Your task to perform on an android device: Open accessibility settings Image 0: 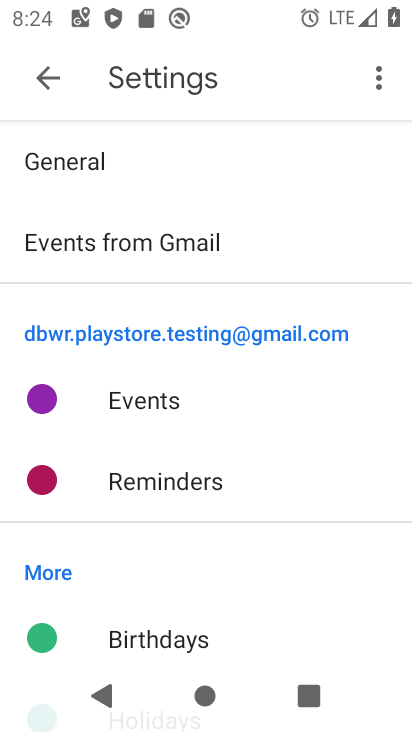
Step 0: press home button
Your task to perform on an android device: Open accessibility settings Image 1: 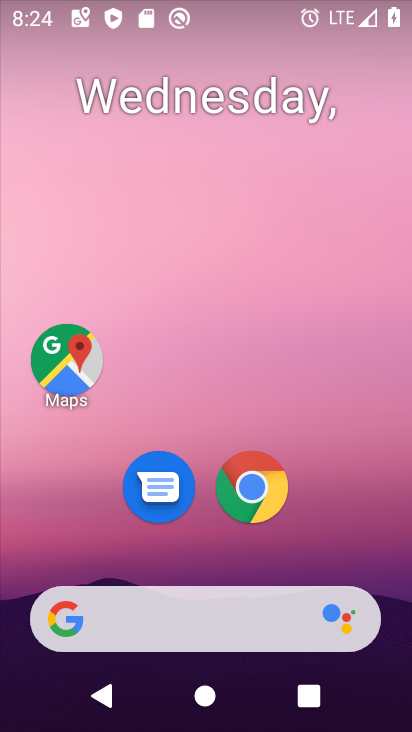
Step 1: drag from (352, 569) to (320, 10)
Your task to perform on an android device: Open accessibility settings Image 2: 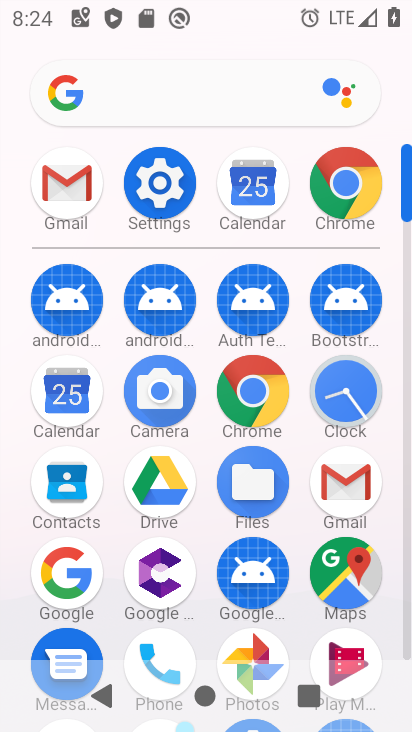
Step 2: click (151, 187)
Your task to perform on an android device: Open accessibility settings Image 3: 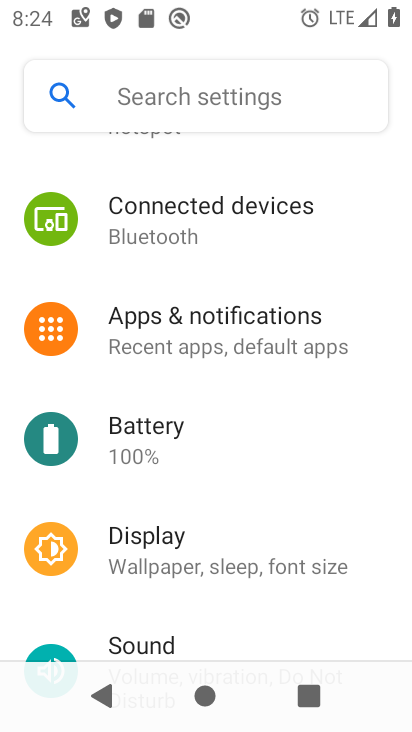
Step 3: drag from (289, 537) to (251, 83)
Your task to perform on an android device: Open accessibility settings Image 4: 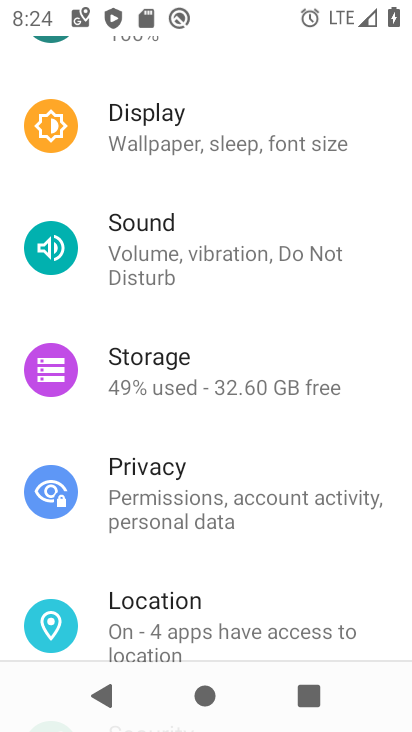
Step 4: drag from (247, 470) to (205, 110)
Your task to perform on an android device: Open accessibility settings Image 5: 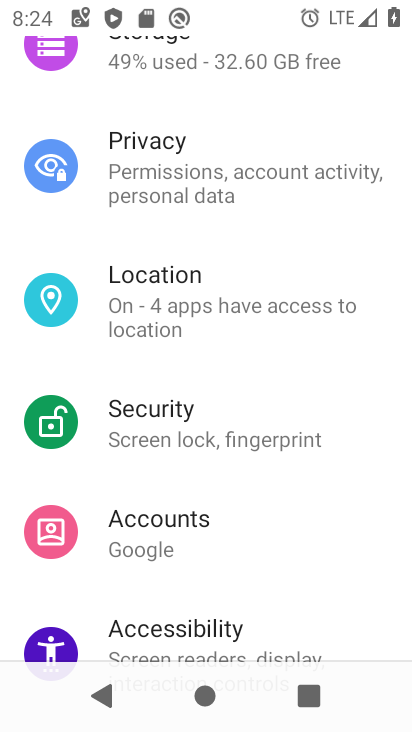
Step 5: drag from (266, 505) to (234, 210)
Your task to perform on an android device: Open accessibility settings Image 6: 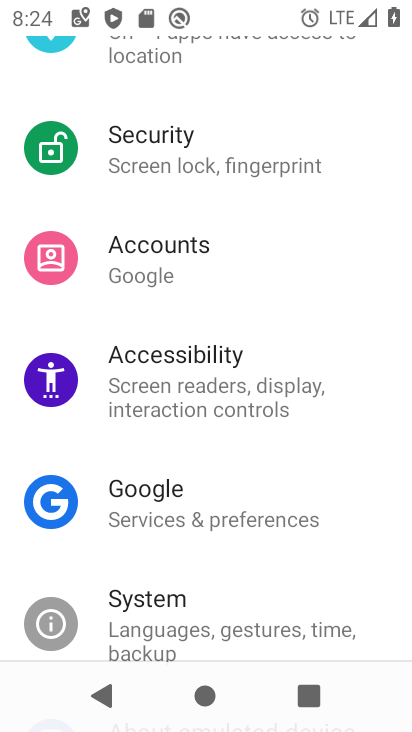
Step 6: click (167, 379)
Your task to perform on an android device: Open accessibility settings Image 7: 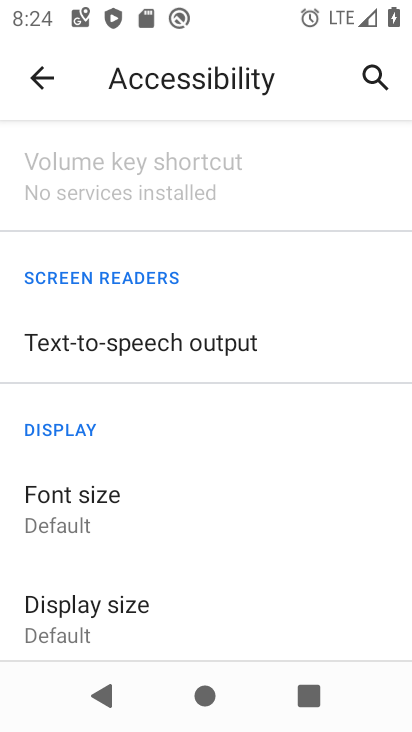
Step 7: task complete